Your task to perform on an android device: Open privacy settings Image 0: 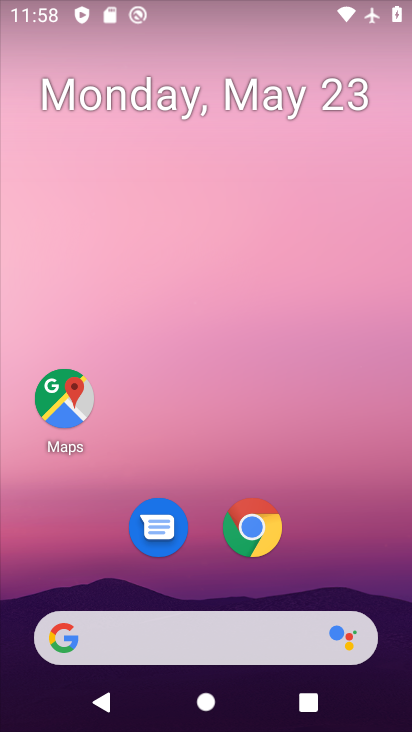
Step 0: press home button
Your task to perform on an android device: Open privacy settings Image 1: 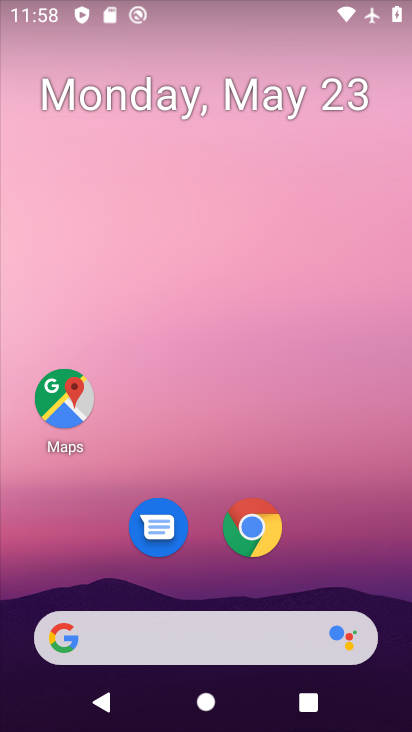
Step 1: drag from (167, 654) to (269, 161)
Your task to perform on an android device: Open privacy settings Image 2: 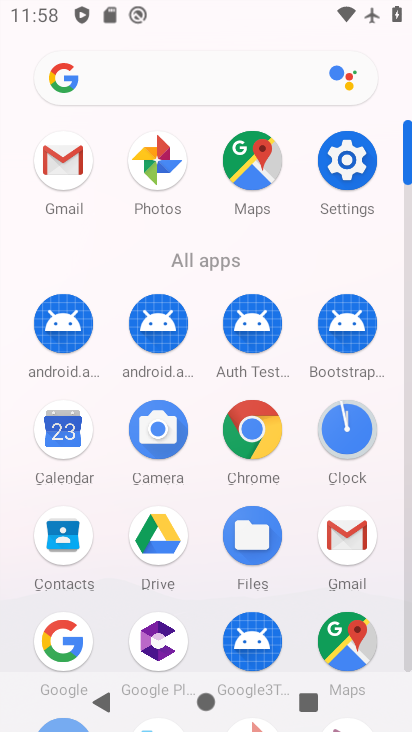
Step 2: click (343, 168)
Your task to perform on an android device: Open privacy settings Image 3: 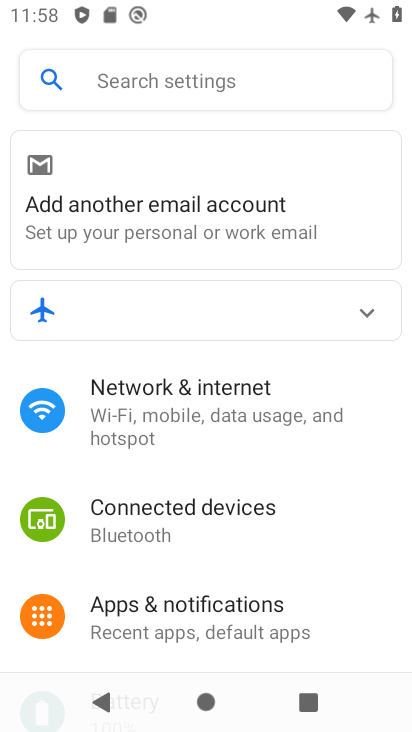
Step 3: drag from (328, 617) to (345, 246)
Your task to perform on an android device: Open privacy settings Image 4: 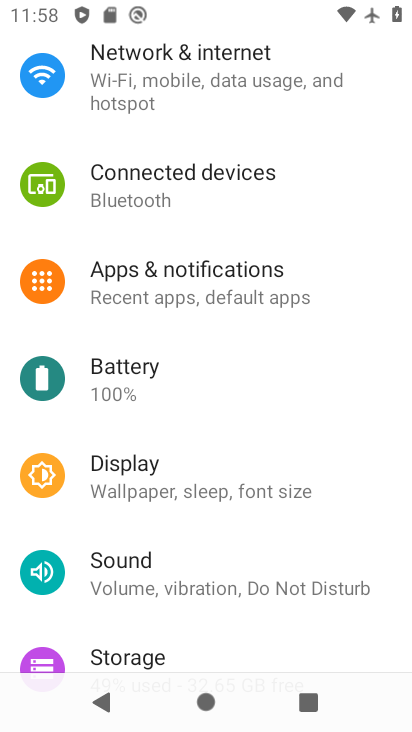
Step 4: drag from (216, 577) to (325, 161)
Your task to perform on an android device: Open privacy settings Image 5: 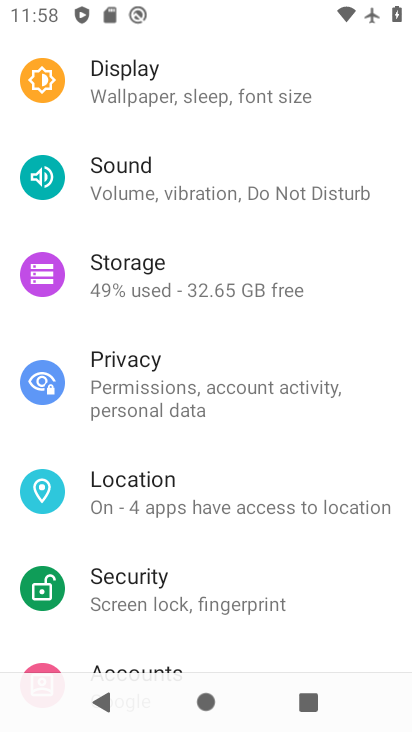
Step 5: click (154, 408)
Your task to perform on an android device: Open privacy settings Image 6: 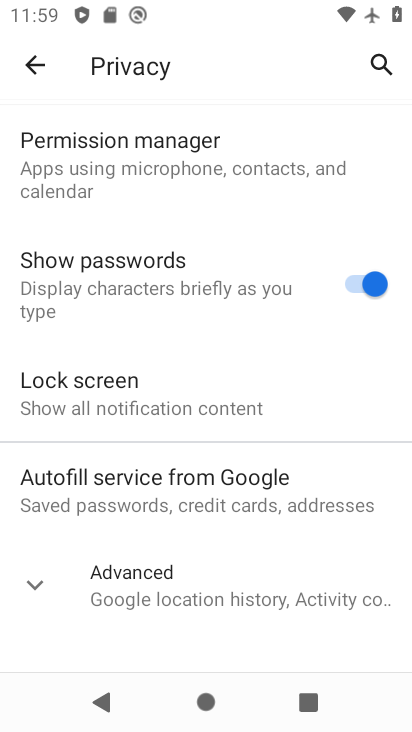
Step 6: task complete